Your task to perform on an android device: Open Google Chrome and open the bookmarks view Image 0: 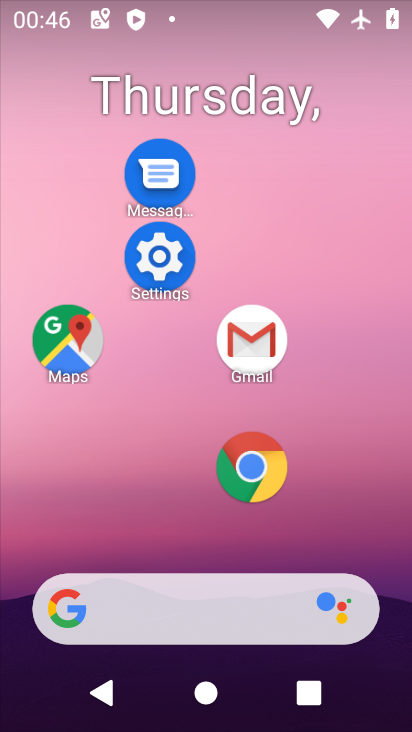
Step 0: drag from (206, 509) to (221, 297)
Your task to perform on an android device: Open Google Chrome and open the bookmarks view Image 1: 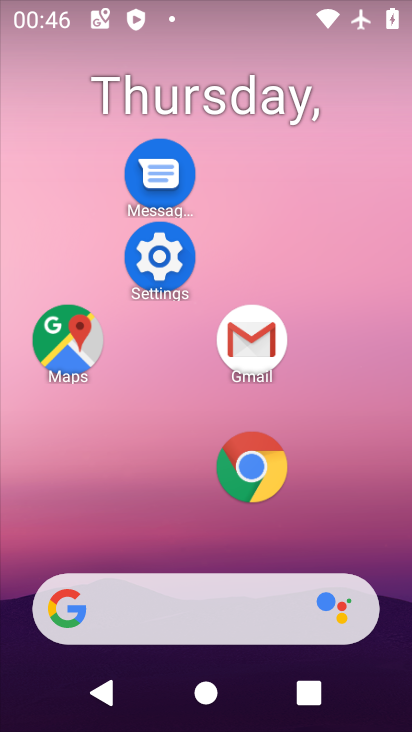
Step 1: click (260, 456)
Your task to perform on an android device: Open Google Chrome and open the bookmarks view Image 2: 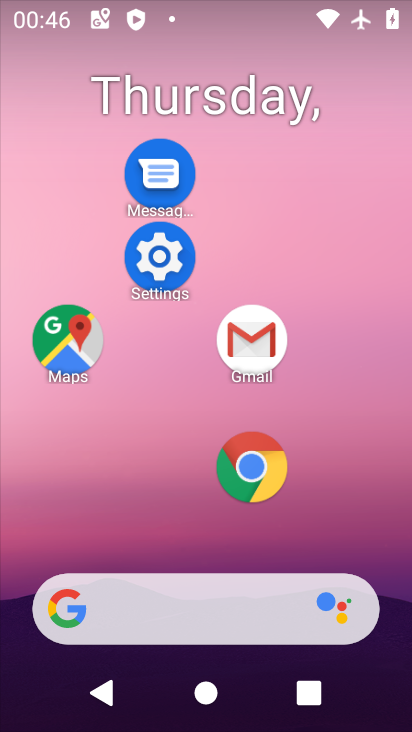
Step 2: click (260, 456)
Your task to perform on an android device: Open Google Chrome and open the bookmarks view Image 3: 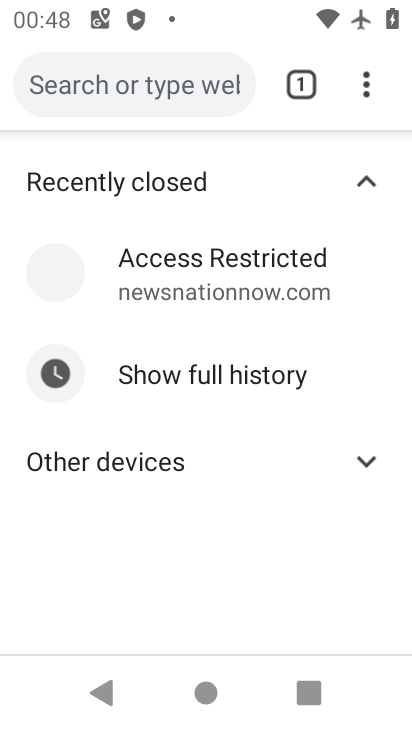
Step 3: task complete